Your task to perform on an android device: Open display settings Image 0: 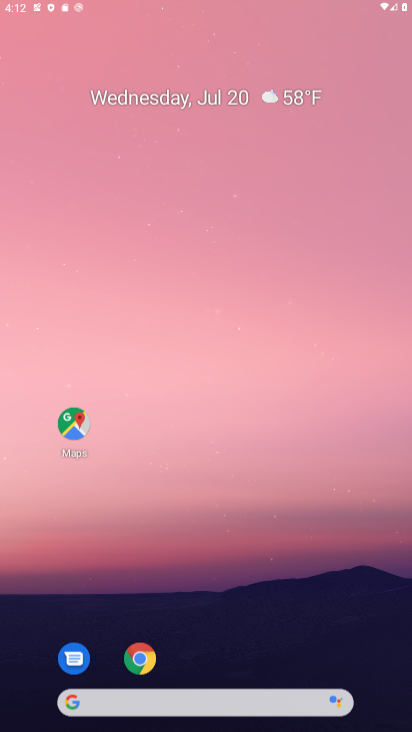
Step 0: click (175, 314)
Your task to perform on an android device: Open display settings Image 1: 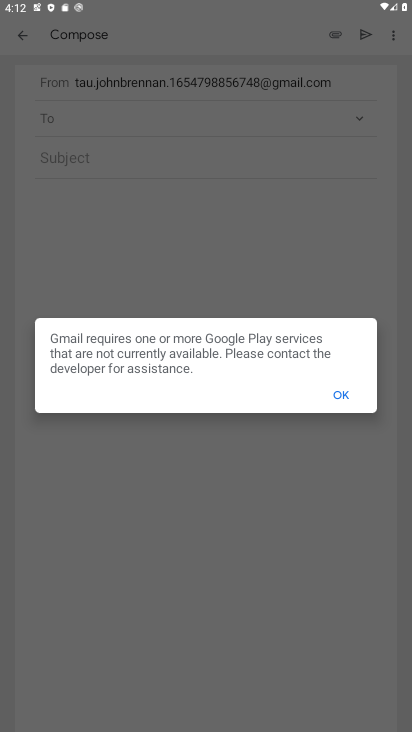
Step 1: drag from (218, 590) to (159, 217)
Your task to perform on an android device: Open display settings Image 2: 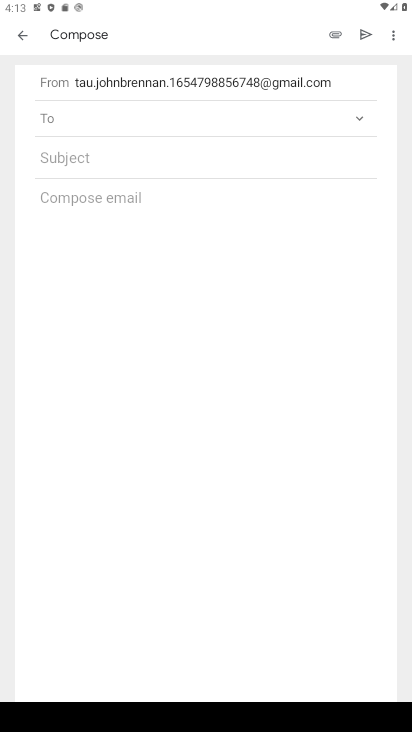
Step 2: click (9, 38)
Your task to perform on an android device: Open display settings Image 3: 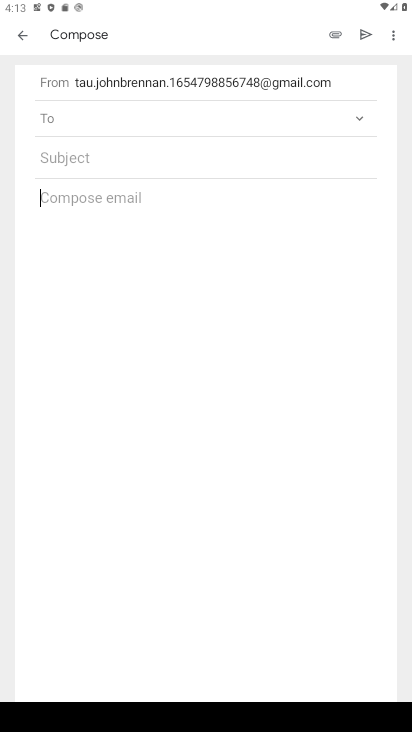
Step 3: click (13, 33)
Your task to perform on an android device: Open display settings Image 4: 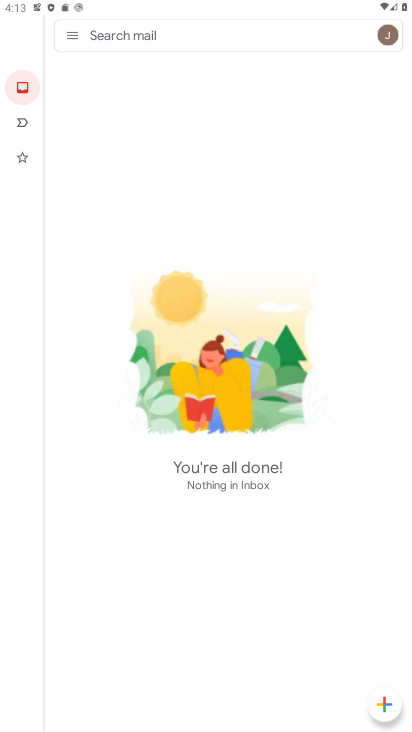
Step 4: press back button
Your task to perform on an android device: Open display settings Image 5: 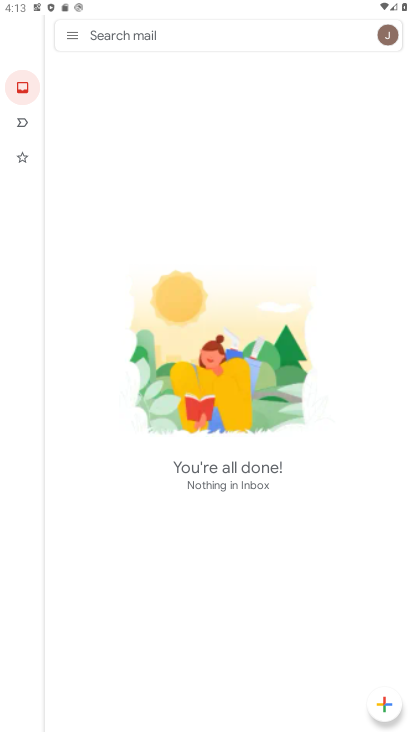
Step 5: press back button
Your task to perform on an android device: Open display settings Image 6: 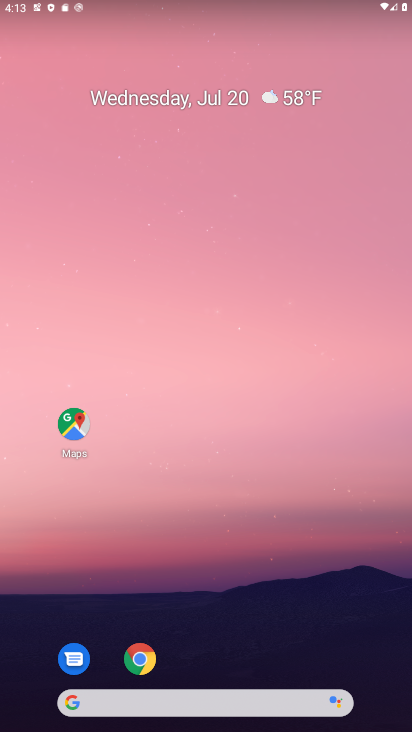
Step 6: drag from (241, 197) to (220, 40)
Your task to perform on an android device: Open display settings Image 7: 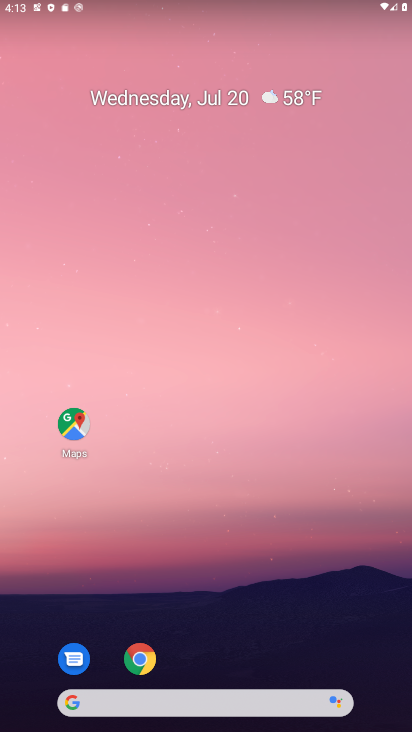
Step 7: drag from (142, 505) to (107, 6)
Your task to perform on an android device: Open display settings Image 8: 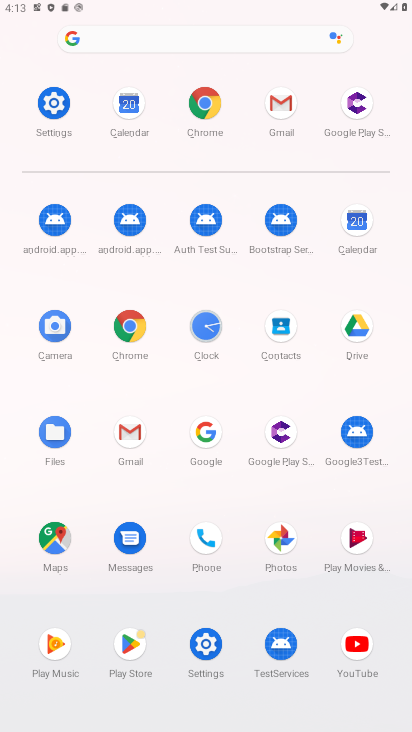
Step 8: click (53, 109)
Your task to perform on an android device: Open display settings Image 9: 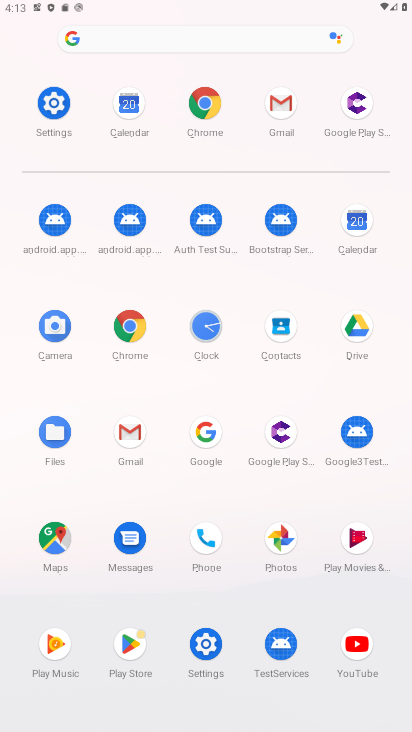
Step 9: click (53, 109)
Your task to perform on an android device: Open display settings Image 10: 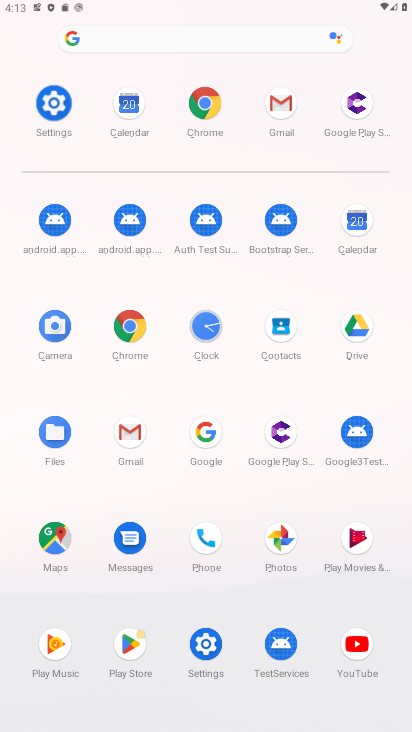
Step 10: click (53, 109)
Your task to perform on an android device: Open display settings Image 11: 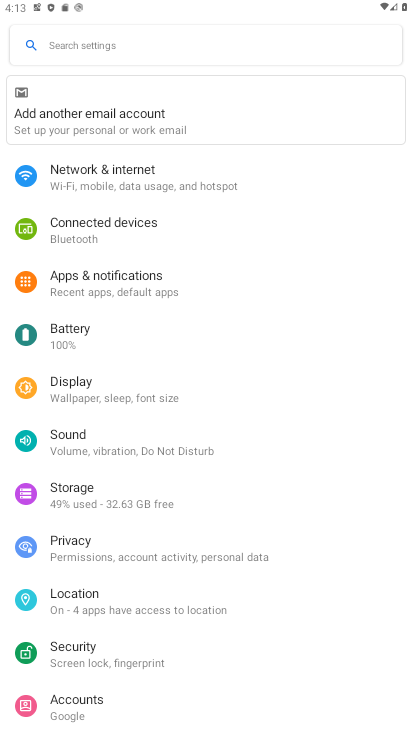
Step 11: click (76, 374)
Your task to perform on an android device: Open display settings Image 12: 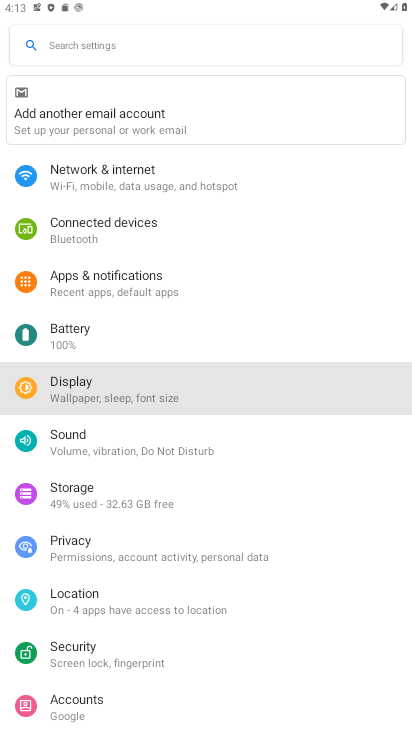
Step 12: click (76, 373)
Your task to perform on an android device: Open display settings Image 13: 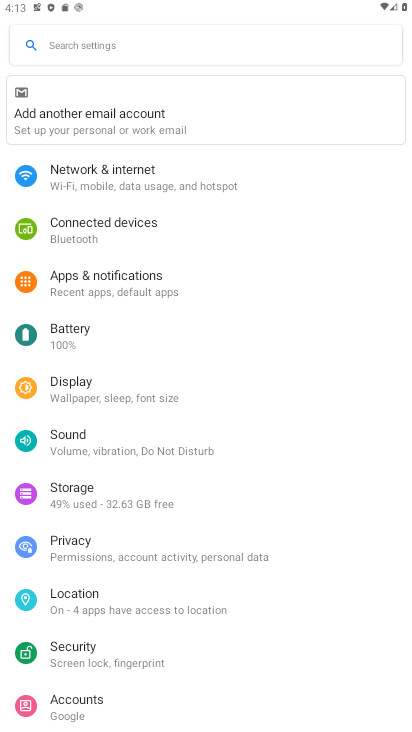
Step 13: click (80, 376)
Your task to perform on an android device: Open display settings Image 14: 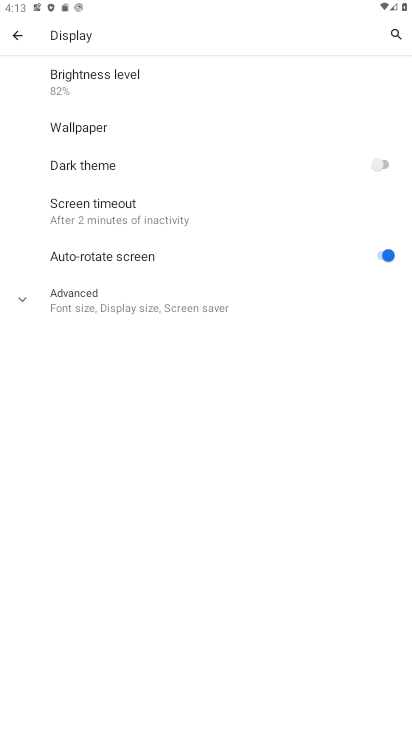
Step 14: task complete